Your task to perform on an android device: Go to notification settings Image 0: 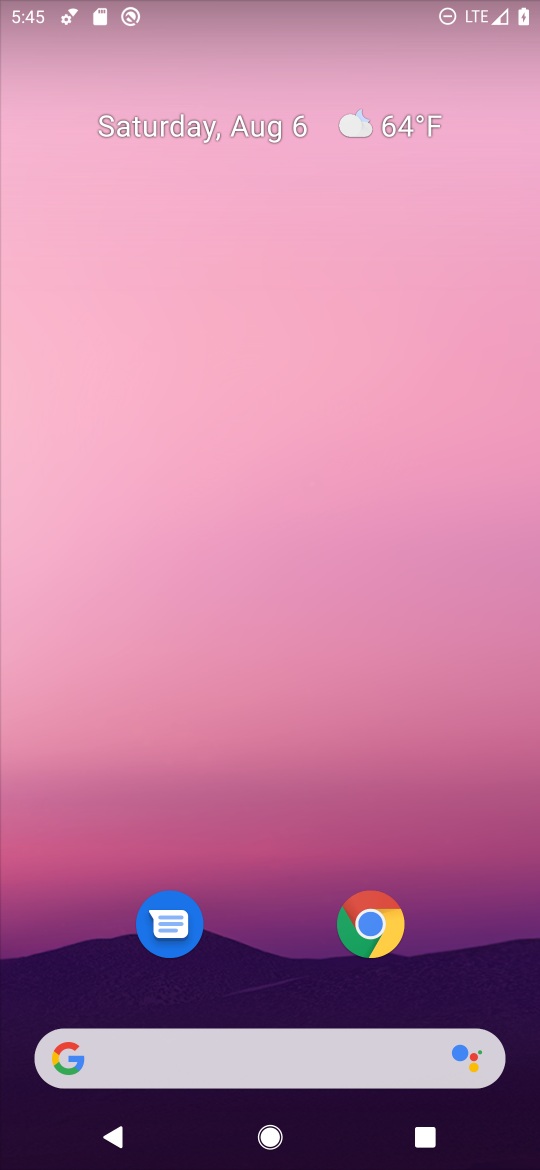
Step 0: drag from (279, 947) to (242, 218)
Your task to perform on an android device: Go to notification settings Image 1: 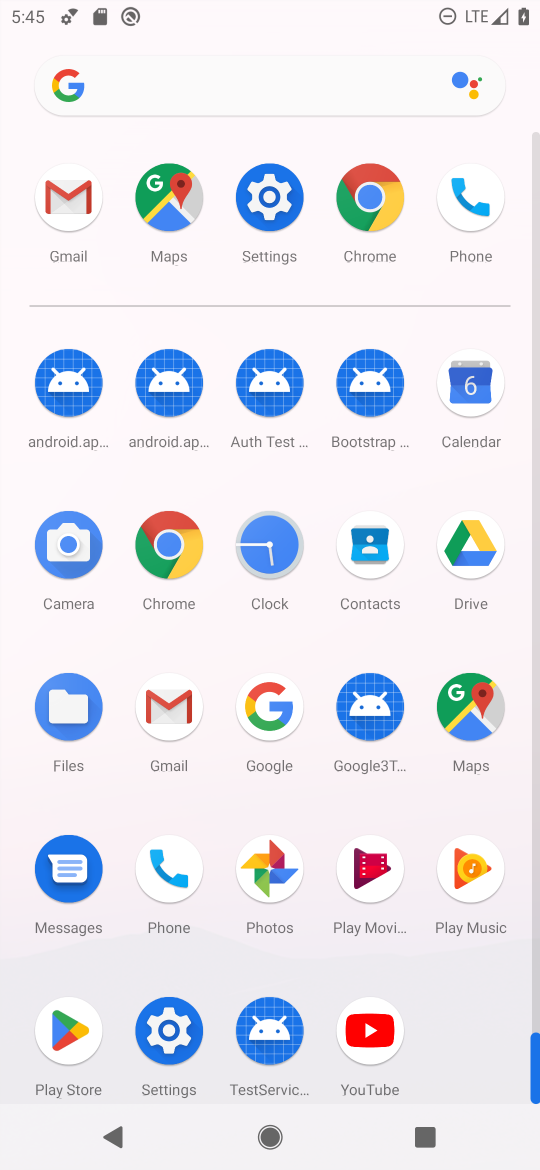
Step 1: click (270, 199)
Your task to perform on an android device: Go to notification settings Image 2: 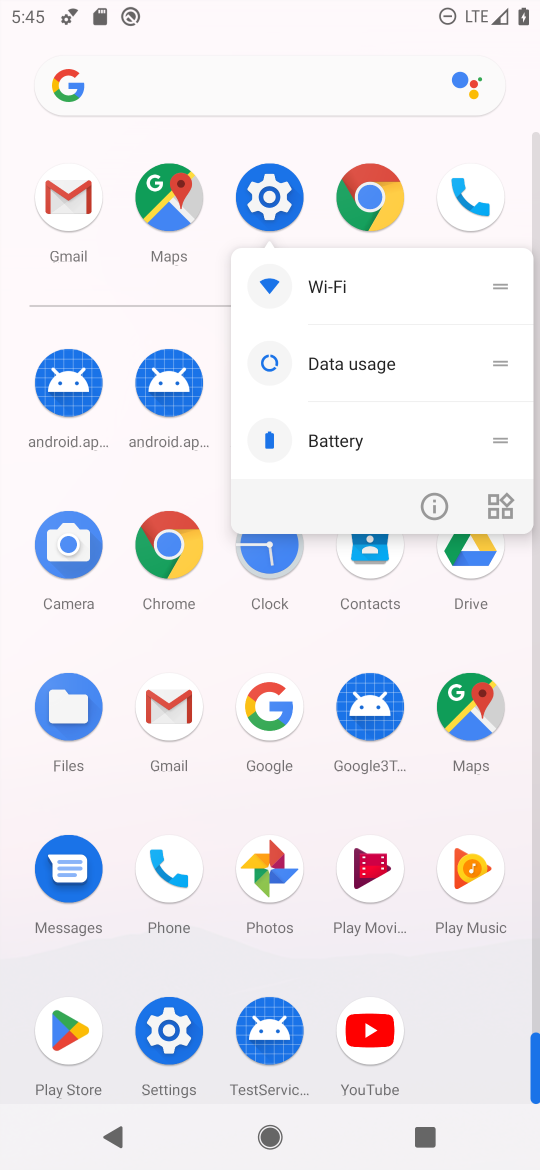
Step 2: click (270, 199)
Your task to perform on an android device: Go to notification settings Image 3: 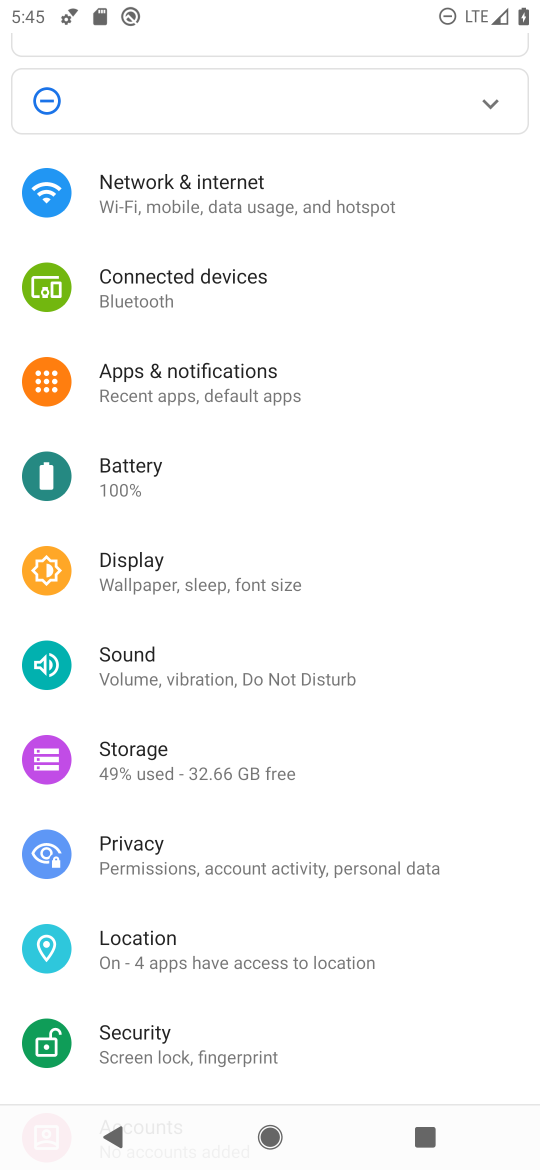
Step 3: click (201, 377)
Your task to perform on an android device: Go to notification settings Image 4: 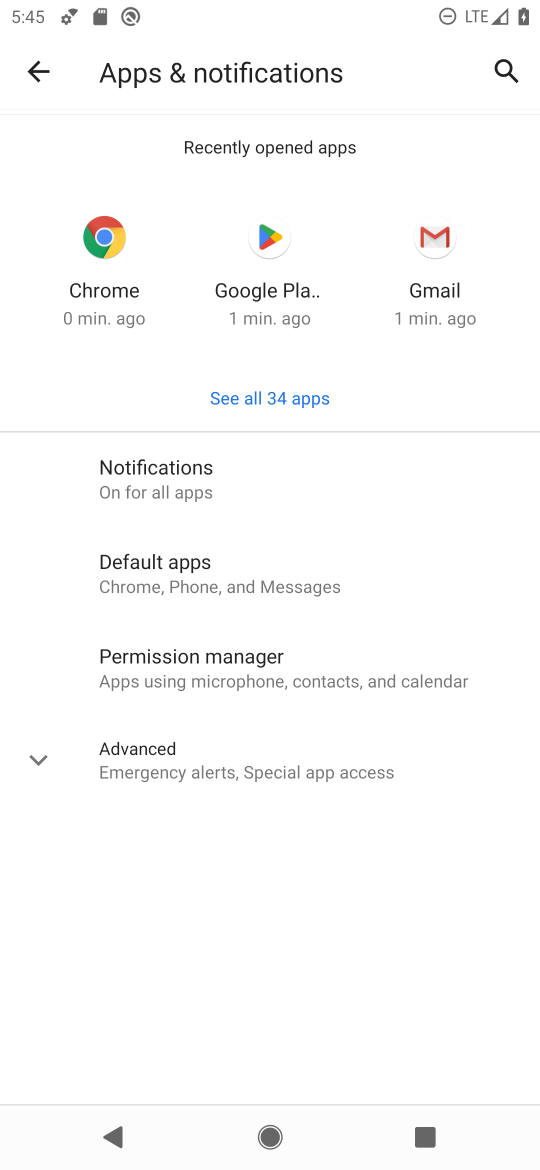
Step 4: task complete